Your task to perform on an android device: check battery use Image 0: 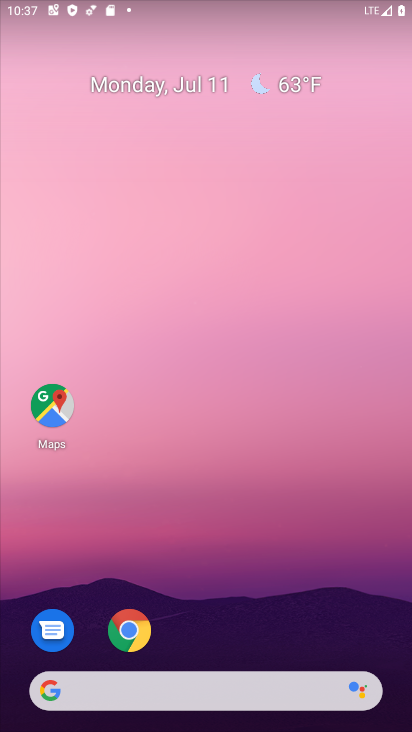
Step 0: drag from (393, 638) to (355, 110)
Your task to perform on an android device: check battery use Image 1: 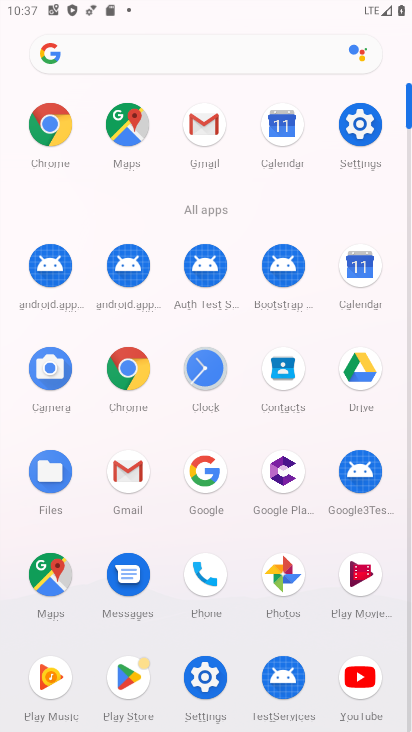
Step 1: click (204, 674)
Your task to perform on an android device: check battery use Image 2: 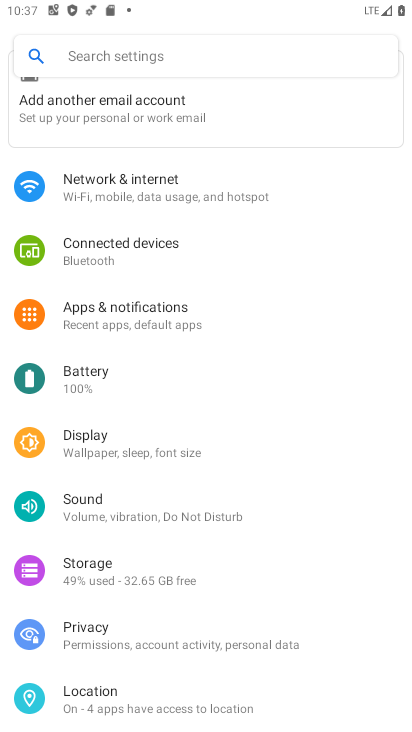
Step 2: click (86, 377)
Your task to perform on an android device: check battery use Image 3: 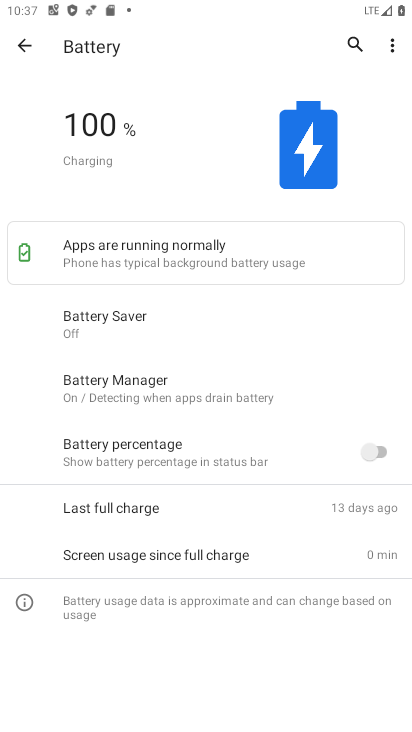
Step 3: click (390, 50)
Your task to perform on an android device: check battery use Image 4: 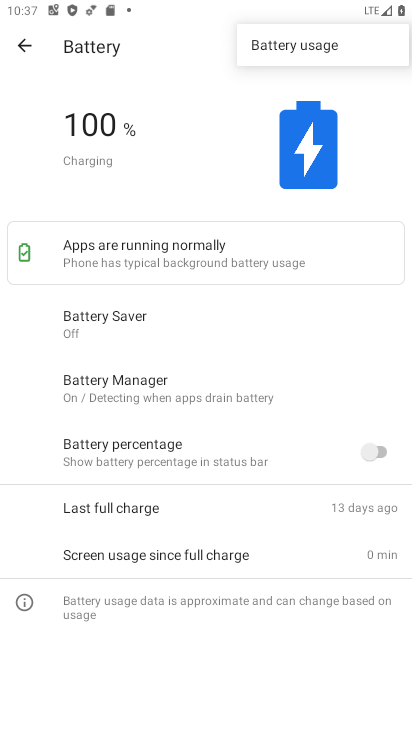
Step 4: click (299, 41)
Your task to perform on an android device: check battery use Image 5: 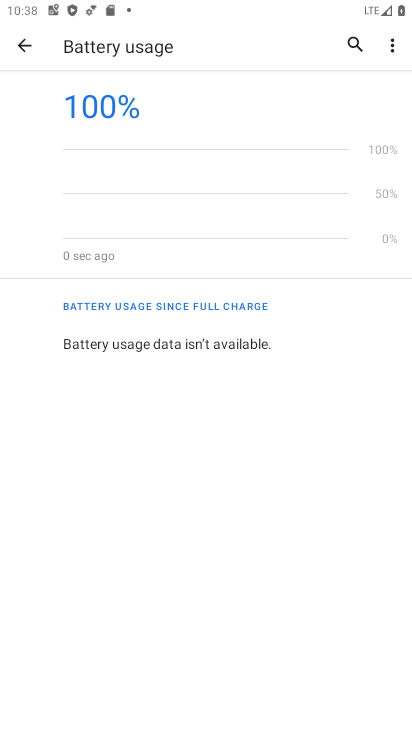
Step 5: task complete